Your task to perform on an android device: open wifi settings Image 0: 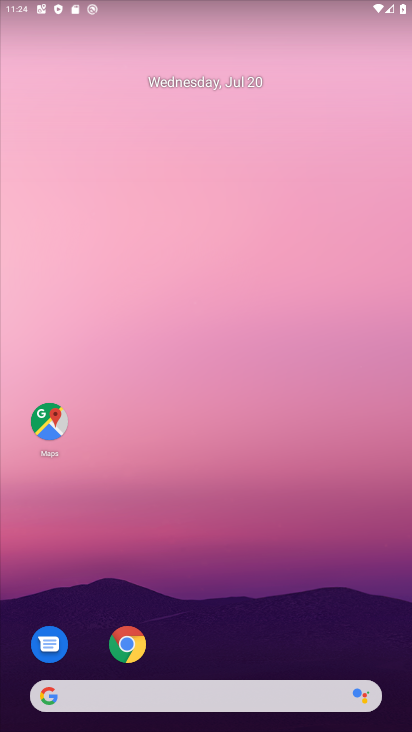
Step 0: drag from (167, 657) to (145, 250)
Your task to perform on an android device: open wifi settings Image 1: 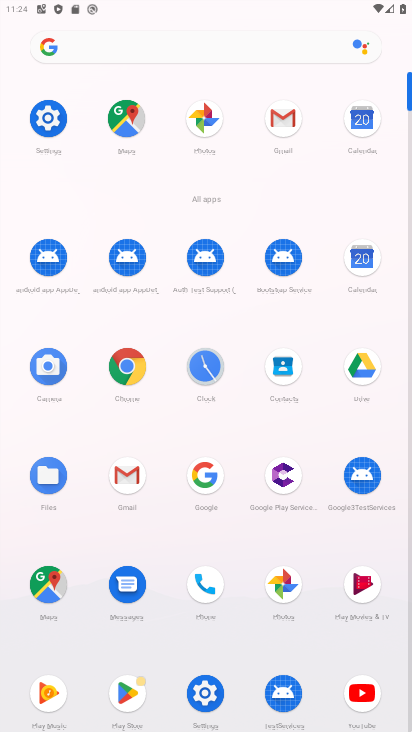
Step 1: click (41, 110)
Your task to perform on an android device: open wifi settings Image 2: 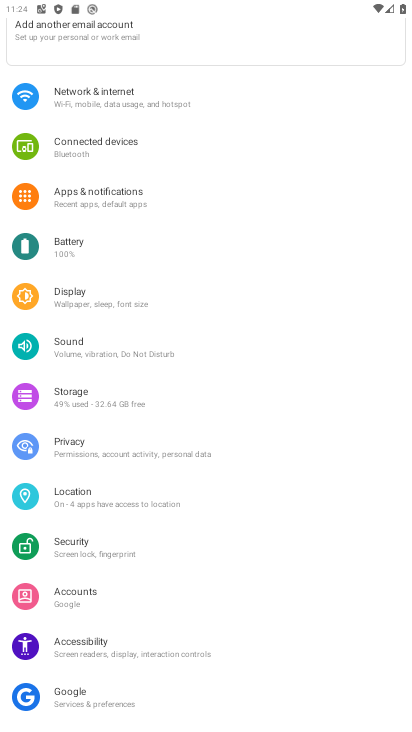
Step 2: click (72, 94)
Your task to perform on an android device: open wifi settings Image 3: 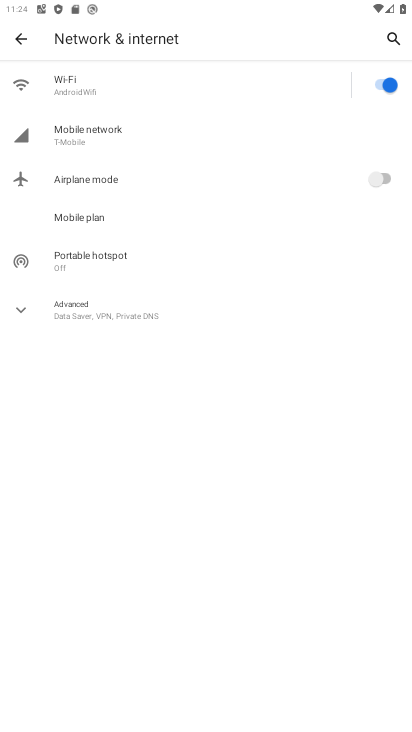
Step 3: click (67, 79)
Your task to perform on an android device: open wifi settings Image 4: 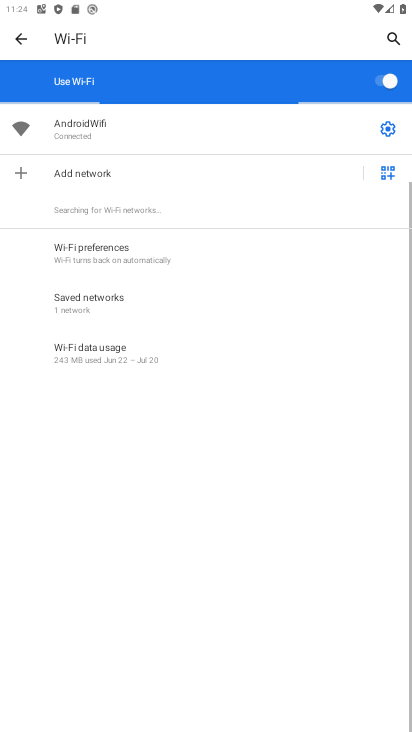
Step 4: click (394, 125)
Your task to perform on an android device: open wifi settings Image 5: 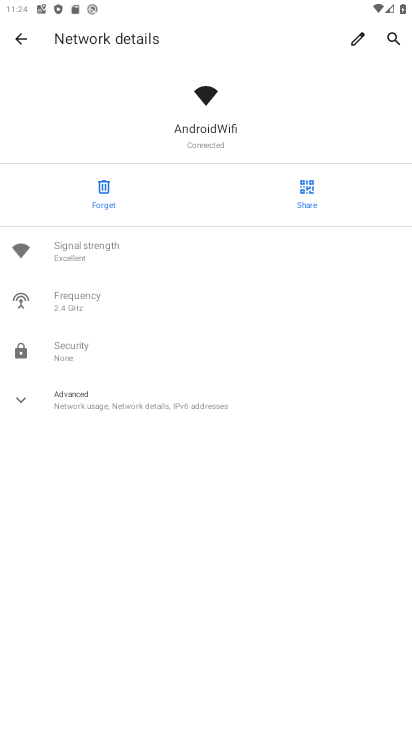
Step 5: click (69, 395)
Your task to perform on an android device: open wifi settings Image 6: 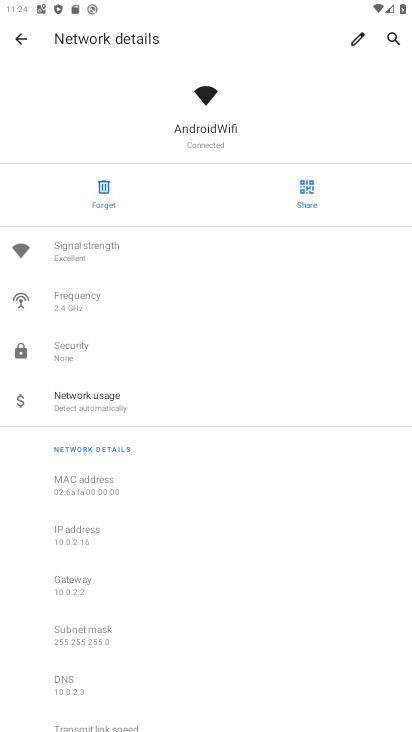
Step 6: task complete